Your task to perform on an android device: add a contact Image 0: 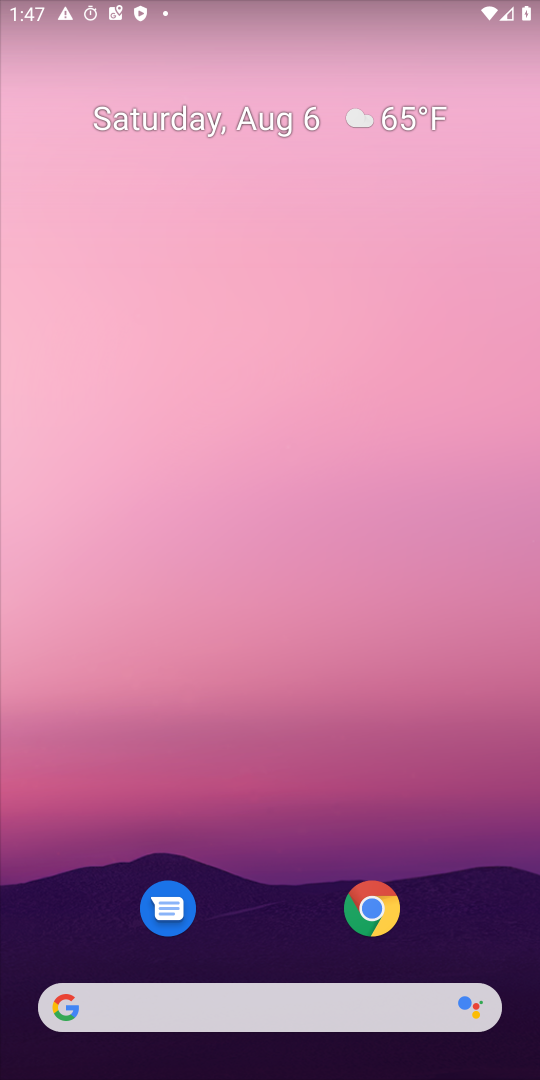
Step 0: drag from (280, 846) to (305, 7)
Your task to perform on an android device: add a contact Image 1: 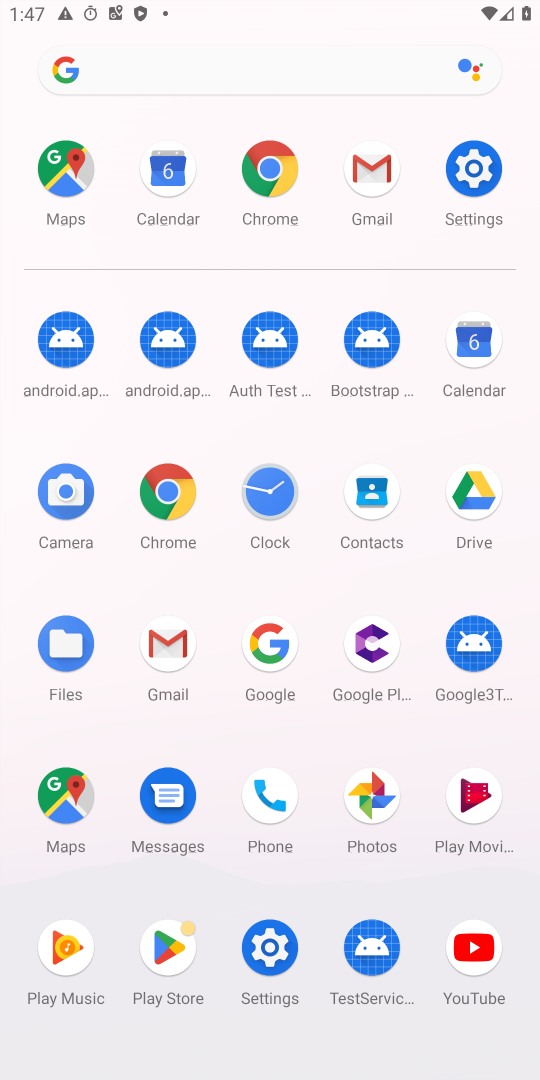
Step 1: click (384, 487)
Your task to perform on an android device: add a contact Image 2: 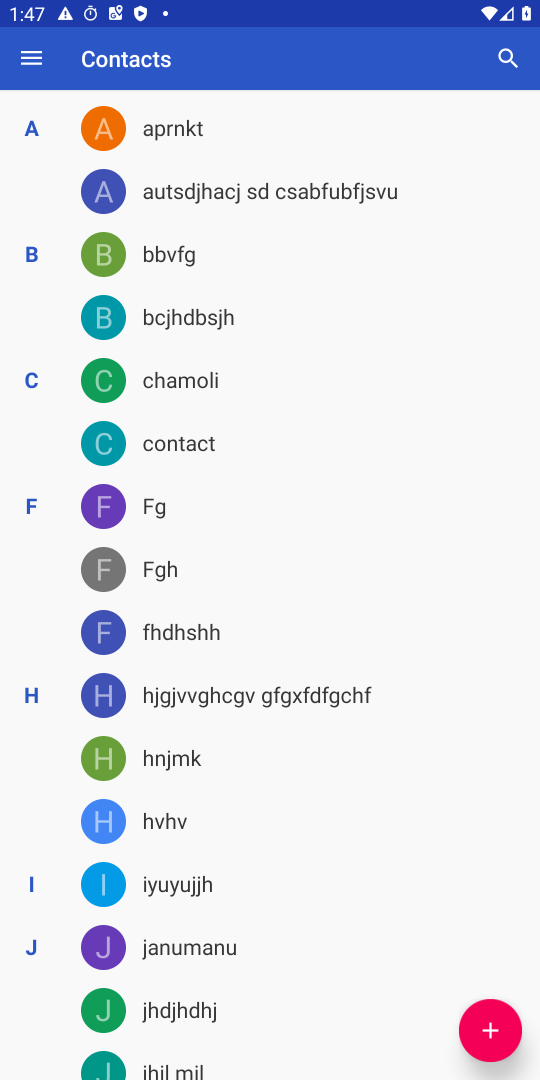
Step 2: click (496, 1034)
Your task to perform on an android device: add a contact Image 3: 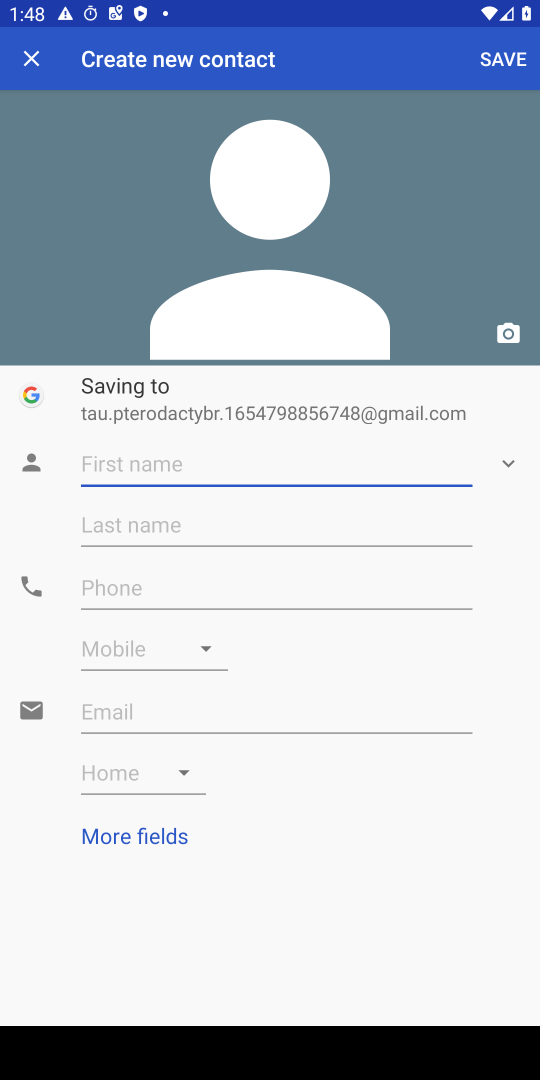
Step 3: type "nmkj"
Your task to perform on an android device: add a contact Image 4: 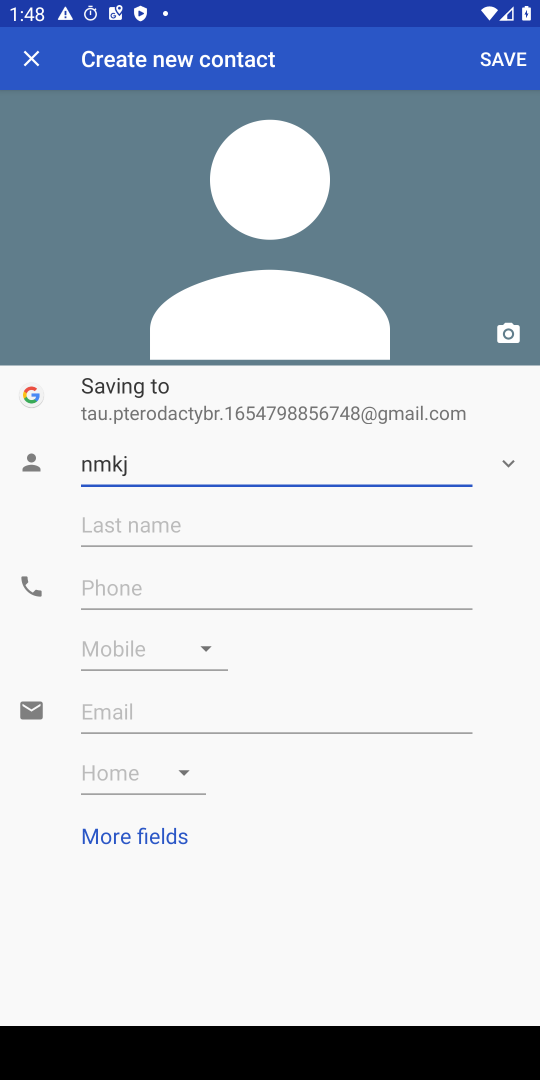
Step 4: click (126, 585)
Your task to perform on an android device: add a contact Image 5: 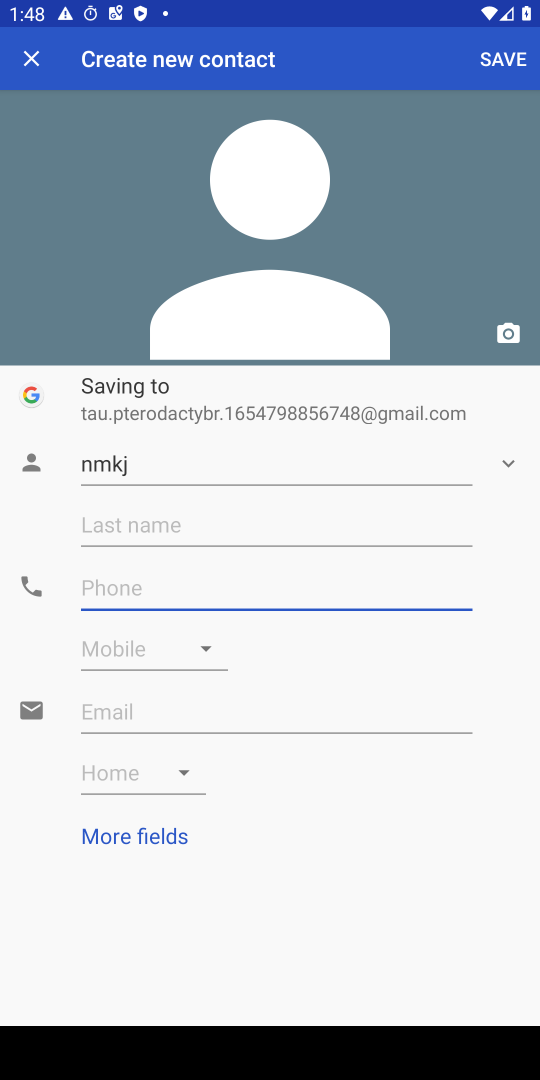
Step 5: type "78788778778"
Your task to perform on an android device: add a contact Image 6: 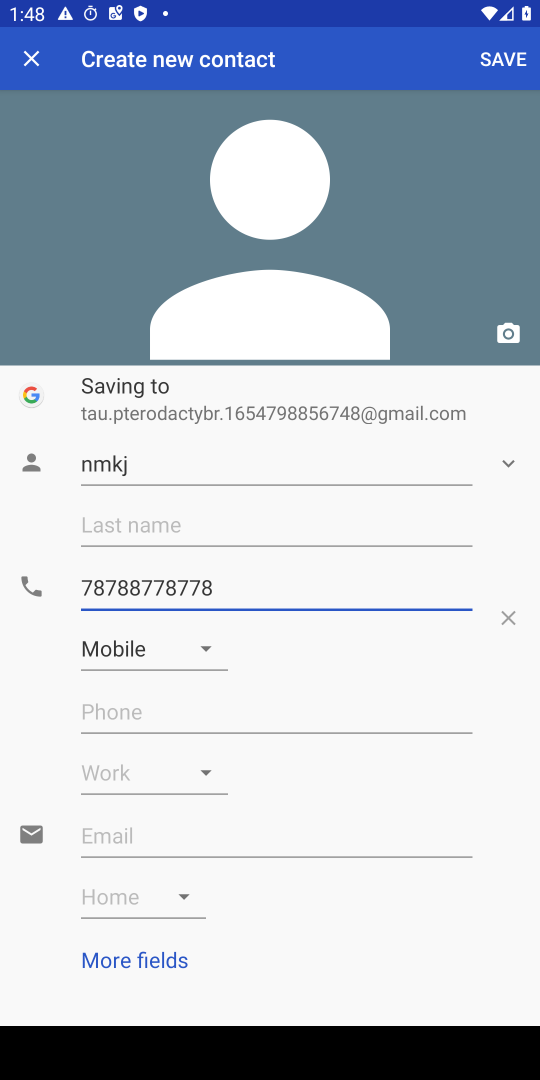
Step 6: click (491, 69)
Your task to perform on an android device: add a contact Image 7: 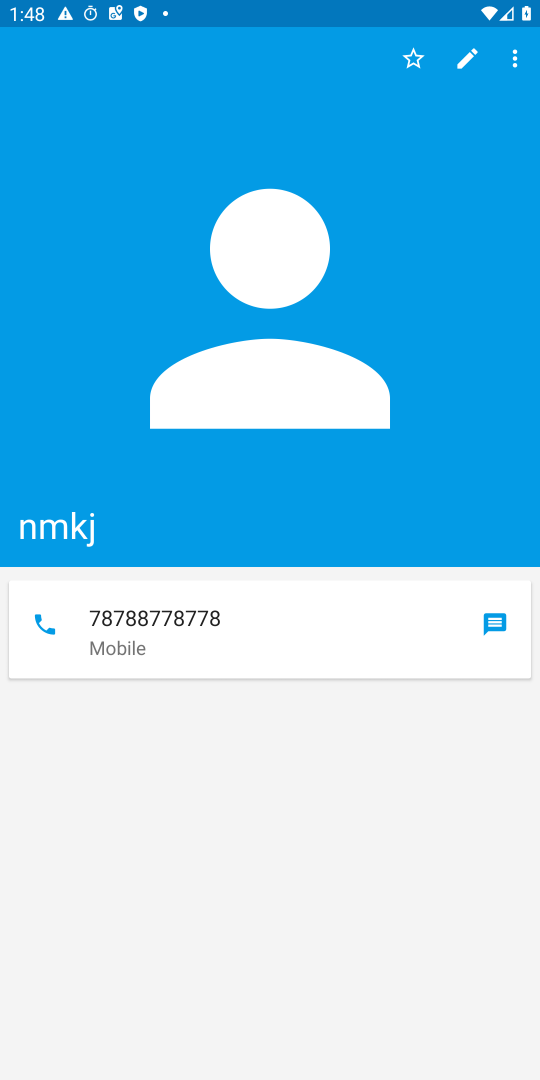
Step 7: task complete